Your task to perform on an android device: turn off airplane mode Image 0: 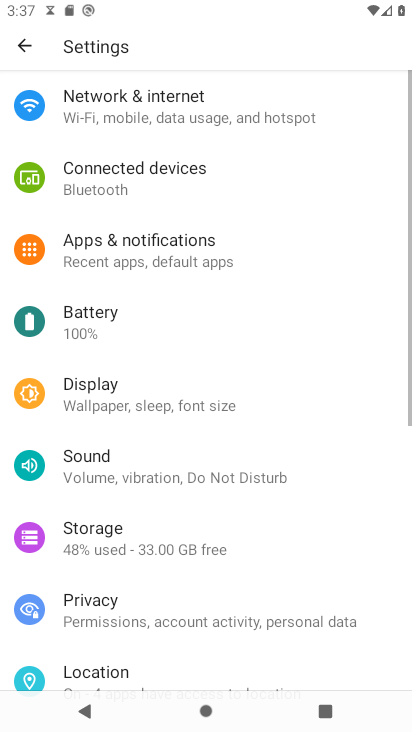
Step 0: press home button
Your task to perform on an android device: turn off airplane mode Image 1: 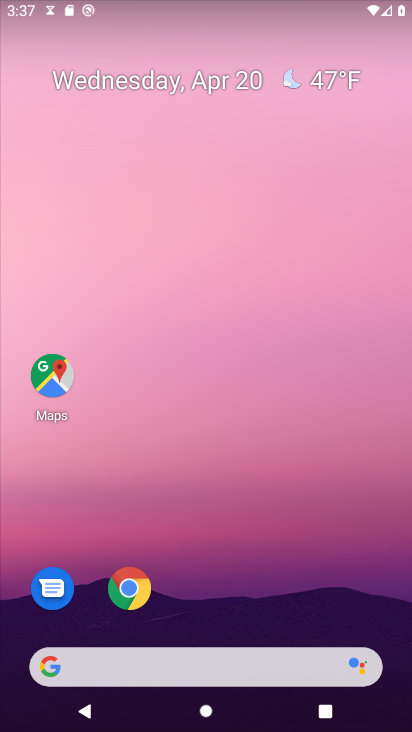
Step 1: drag from (268, 596) to (229, 99)
Your task to perform on an android device: turn off airplane mode Image 2: 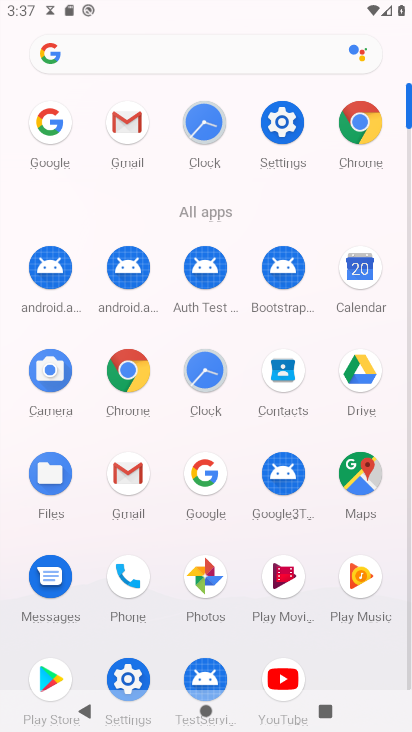
Step 2: click (275, 133)
Your task to perform on an android device: turn off airplane mode Image 3: 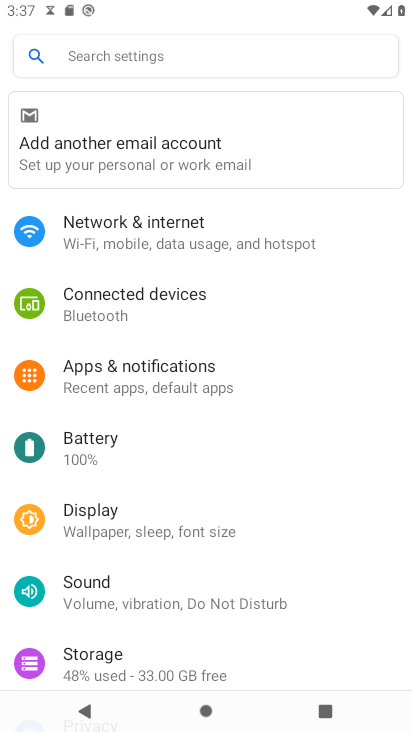
Step 3: click (228, 220)
Your task to perform on an android device: turn off airplane mode Image 4: 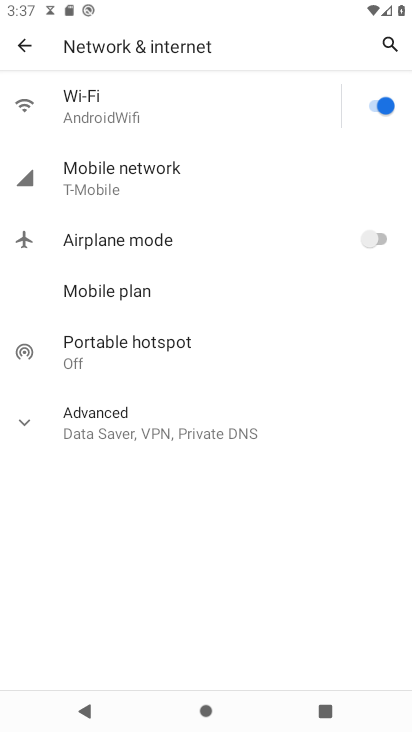
Step 4: task complete